Your task to perform on an android device: Toggle the flashlight Image 0: 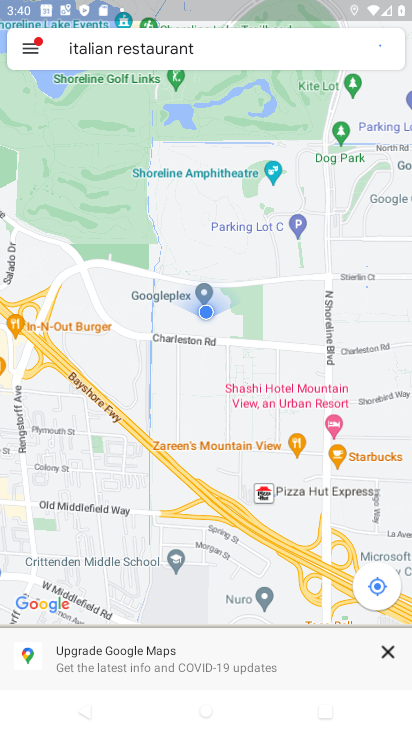
Step 0: drag from (265, 3) to (312, 533)
Your task to perform on an android device: Toggle the flashlight Image 1: 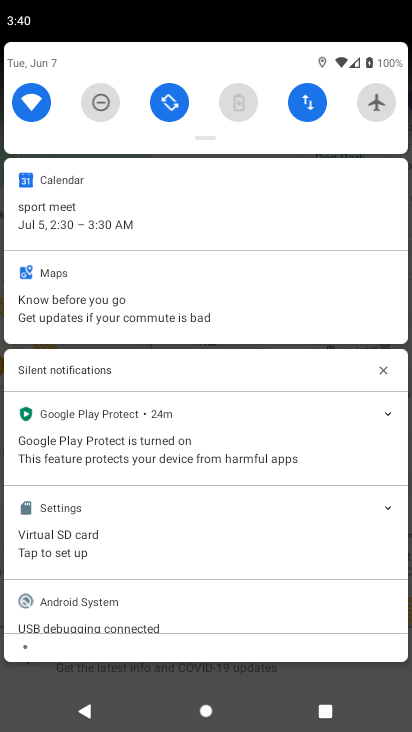
Step 1: task complete